Your task to perform on an android device: What's on my calendar today? Image 0: 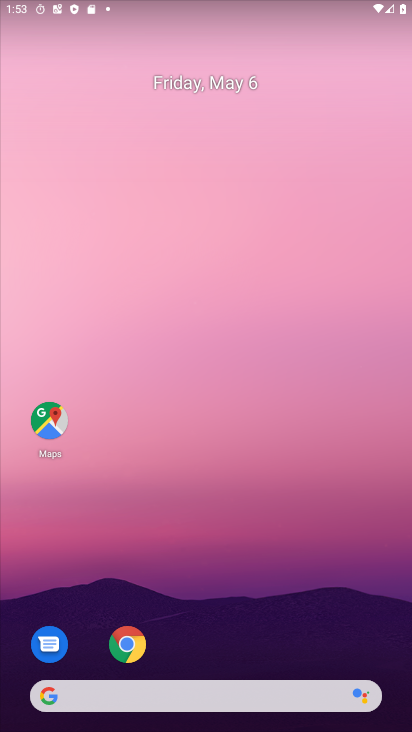
Step 0: drag from (182, 723) to (5, 84)
Your task to perform on an android device: What's on my calendar today? Image 1: 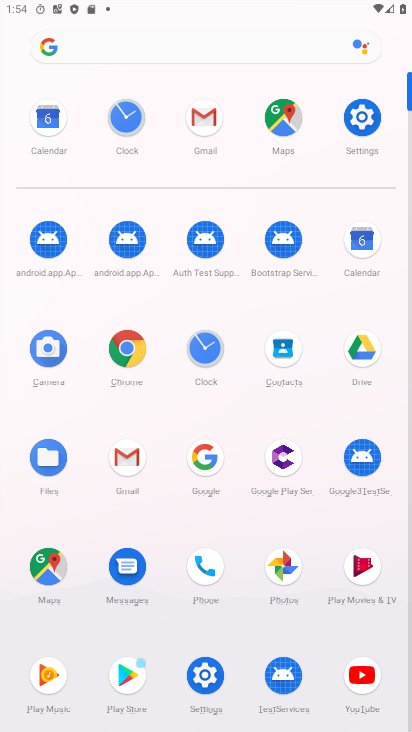
Step 1: click (362, 250)
Your task to perform on an android device: What's on my calendar today? Image 2: 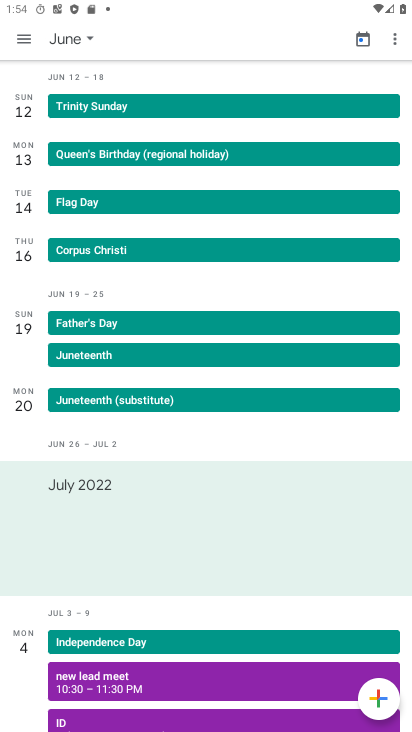
Step 2: task complete